Your task to perform on an android device: toggle javascript in the chrome app Image 0: 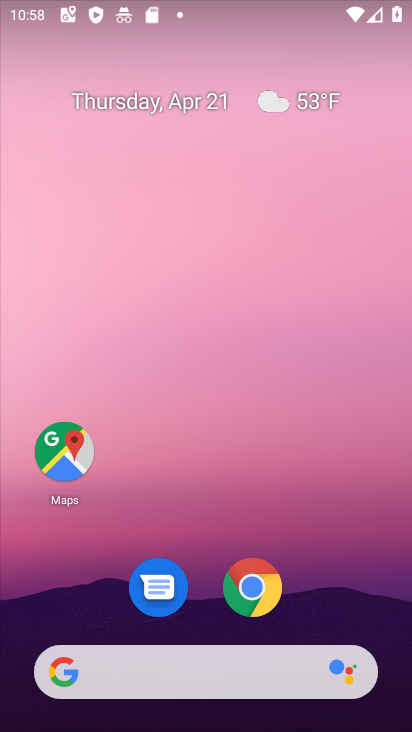
Step 0: click (255, 577)
Your task to perform on an android device: toggle javascript in the chrome app Image 1: 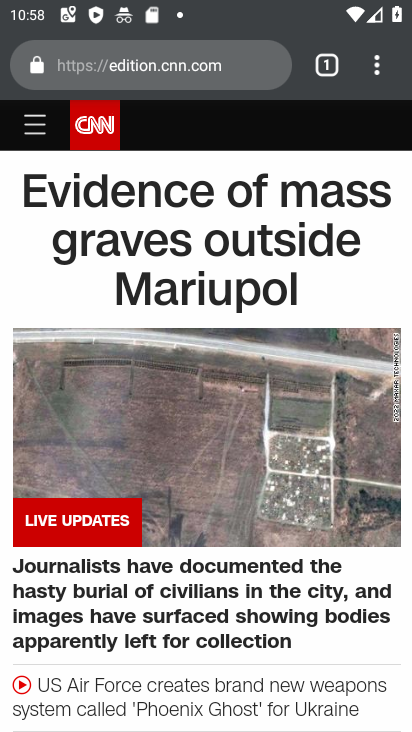
Step 1: click (383, 71)
Your task to perform on an android device: toggle javascript in the chrome app Image 2: 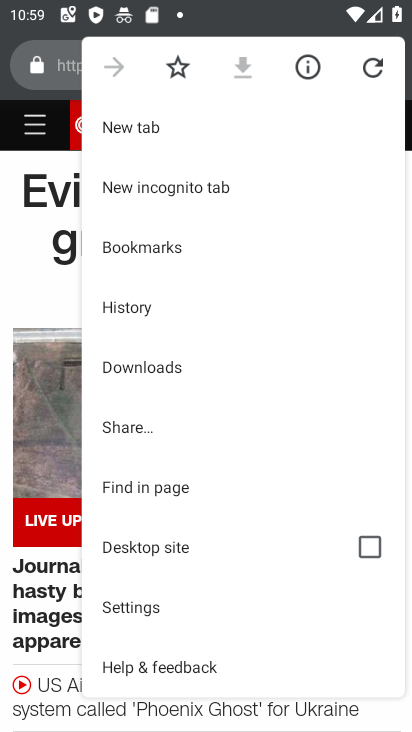
Step 2: click (162, 601)
Your task to perform on an android device: toggle javascript in the chrome app Image 3: 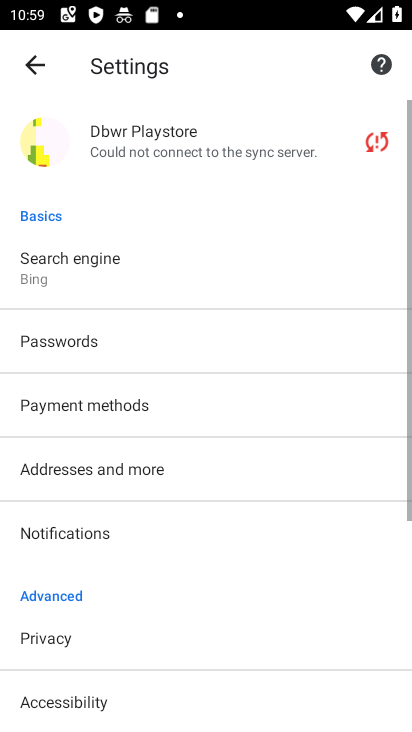
Step 3: drag from (107, 636) to (92, 51)
Your task to perform on an android device: toggle javascript in the chrome app Image 4: 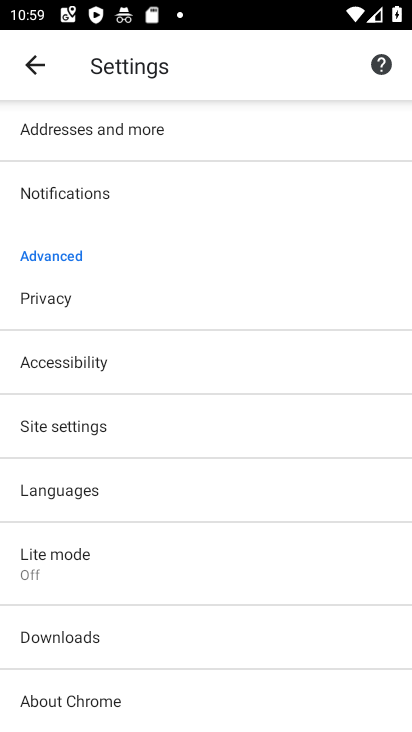
Step 4: click (98, 417)
Your task to perform on an android device: toggle javascript in the chrome app Image 5: 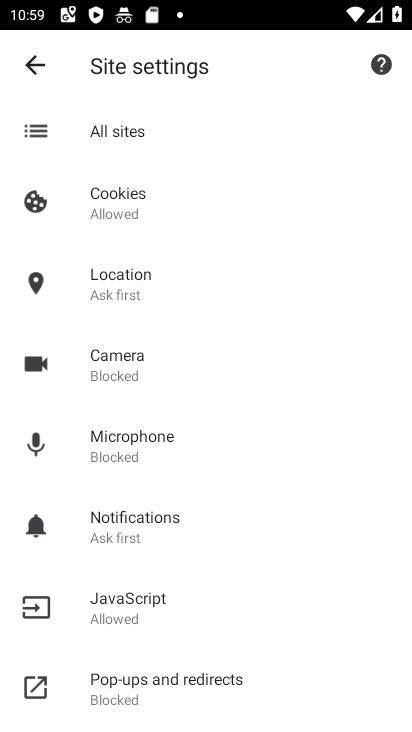
Step 5: click (123, 615)
Your task to perform on an android device: toggle javascript in the chrome app Image 6: 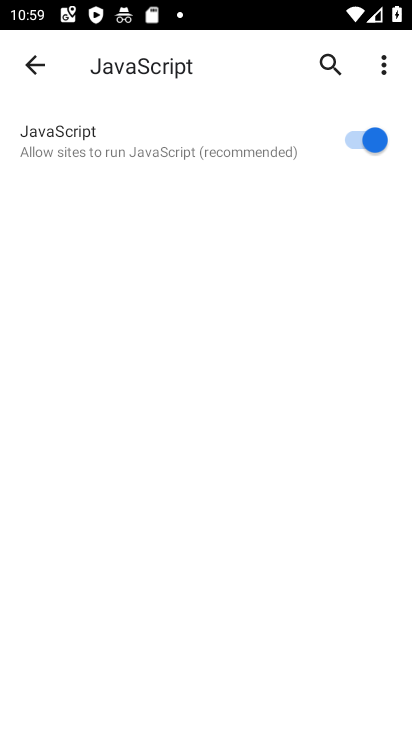
Step 6: click (352, 143)
Your task to perform on an android device: toggle javascript in the chrome app Image 7: 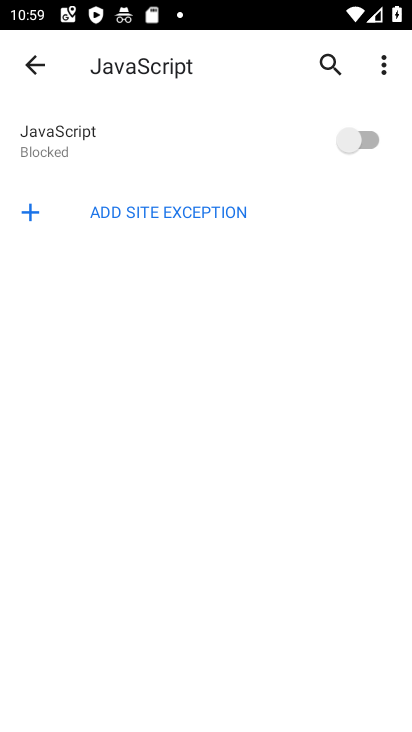
Step 7: task complete